Your task to perform on an android device: Open Google Chrome and open the bookmarks view Image 0: 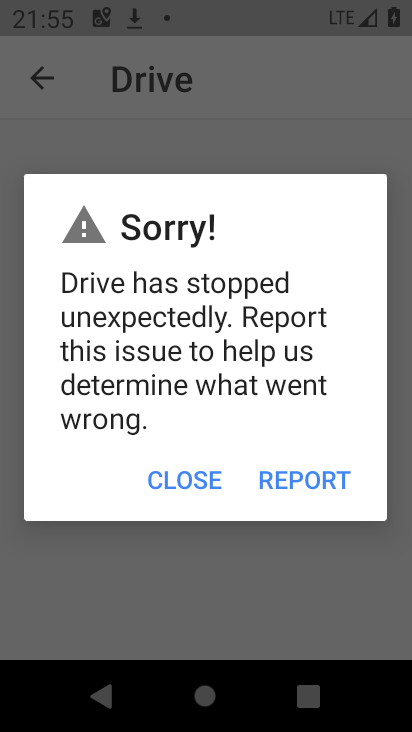
Step 0: click (157, 476)
Your task to perform on an android device: Open Google Chrome and open the bookmarks view Image 1: 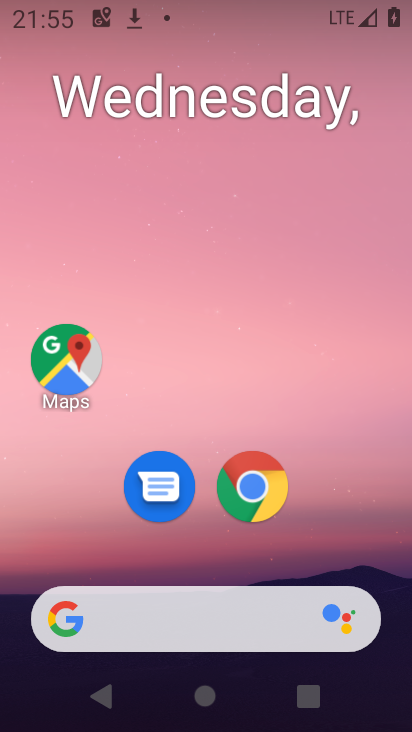
Step 1: click (259, 485)
Your task to perform on an android device: Open Google Chrome and open the bookmarks view Image 2: 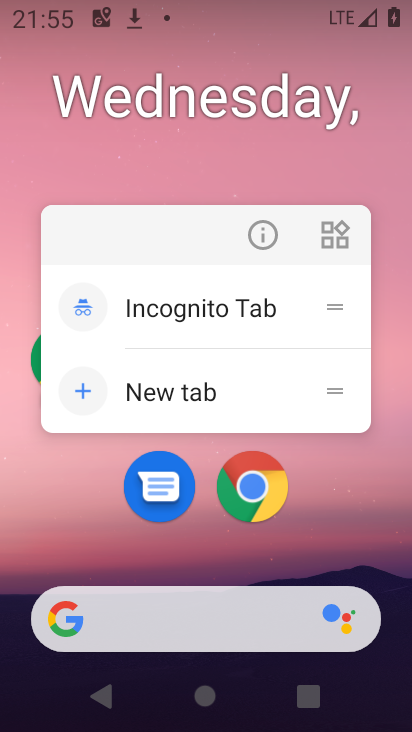
Step 2: click (260, 480)
Your task to perform on an android device: Open Google Chrome and open the bookmarks view Image 3: 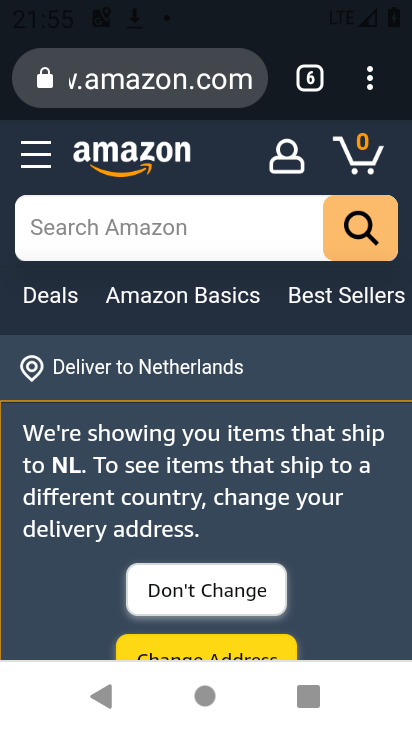
Step 3: task complete